Your task to perform on an android device: Open internet settings Image 0: 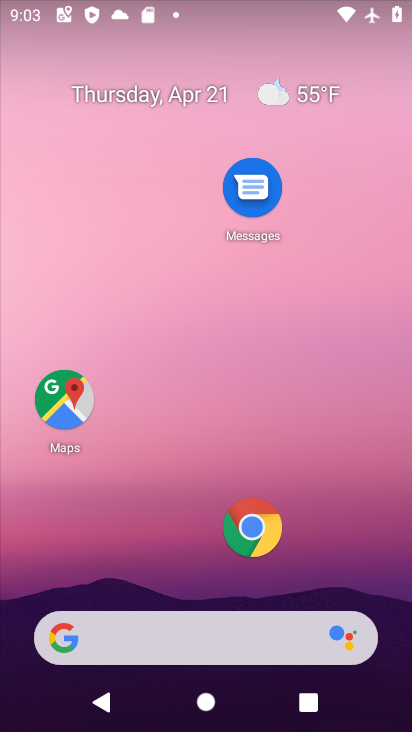
Step 0: drag from (170, 639) to (361, 0)
Your task to perform on an android device: Open internet settings Image 1: 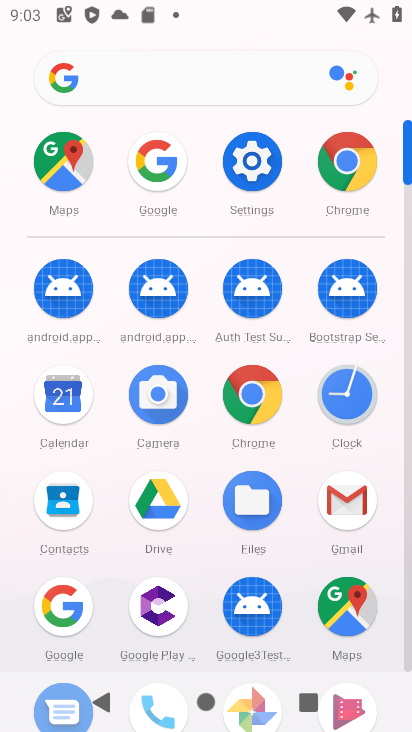
Step 1: click (248, 178)
Your task to perform on an android device: Open internet settings Image 2: 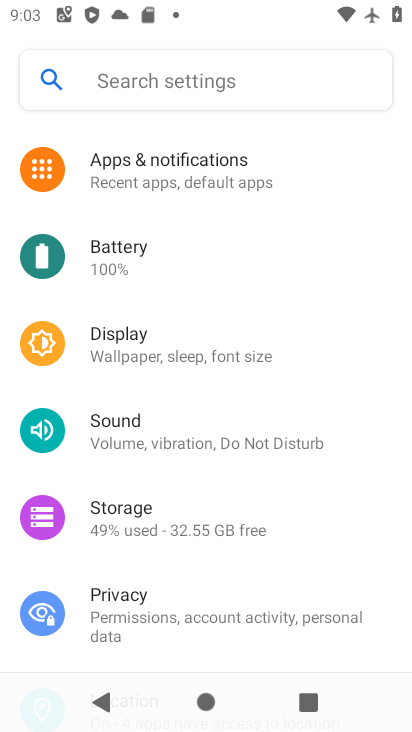
Step 2: drag from (296, 131) to (234, 503)
Your task to perform on an android device: Open internet settings Image 3: 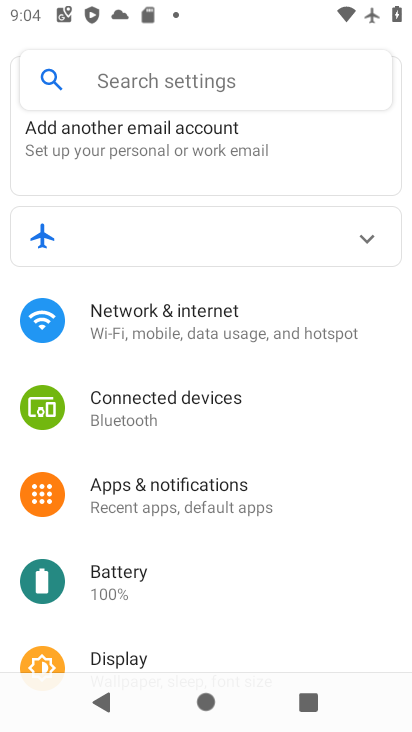
Step 3: click (237, 318)
Your task to perform on an android device: Open internet settings Image 4: 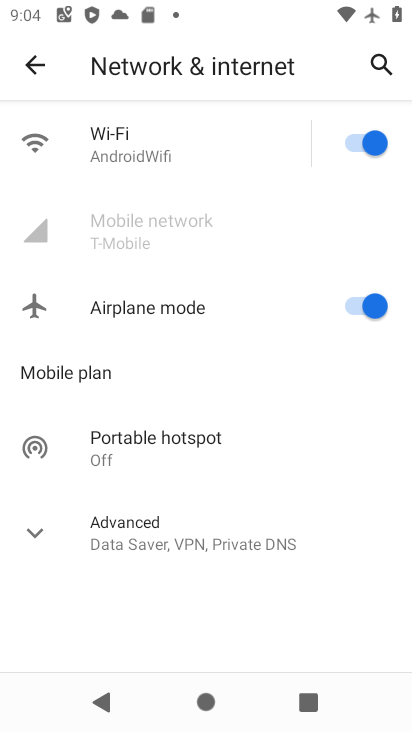
Step 4: task complete